Your task to perform on an android device: Open the Play Movies app and select the watchlist tab. Image 0: 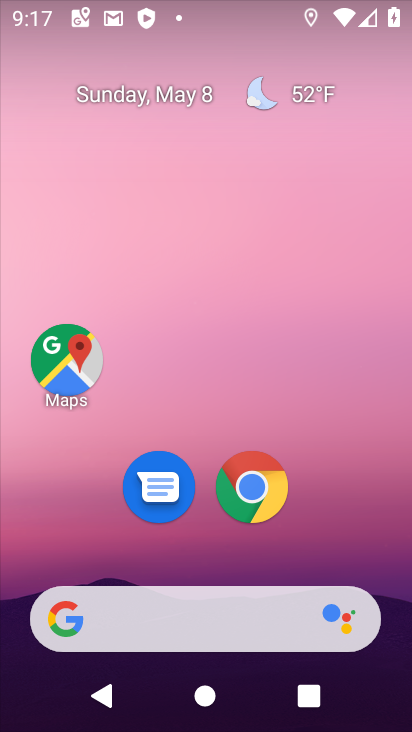
Step 0: drag from (405, 621) to (240, 68)
Your task to perform on an android device: Open the Play Movies app and select the watchlist tab. Image 1: 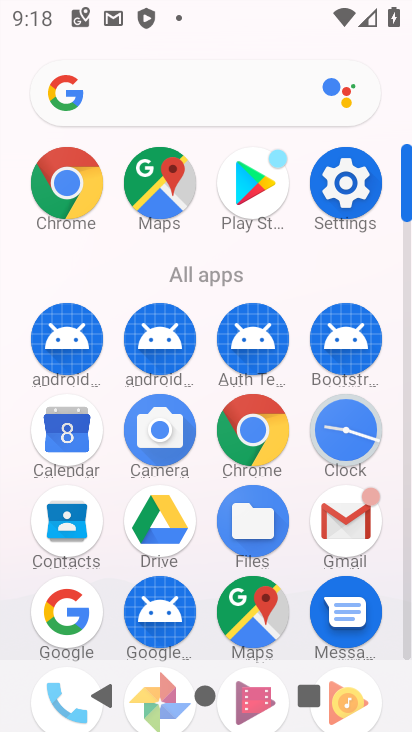
Step 1: drag from (211, 633) to (200, 120)
Your task to perform on an android device: Open the Play Movies app and select the watchlist tab. Image 2: 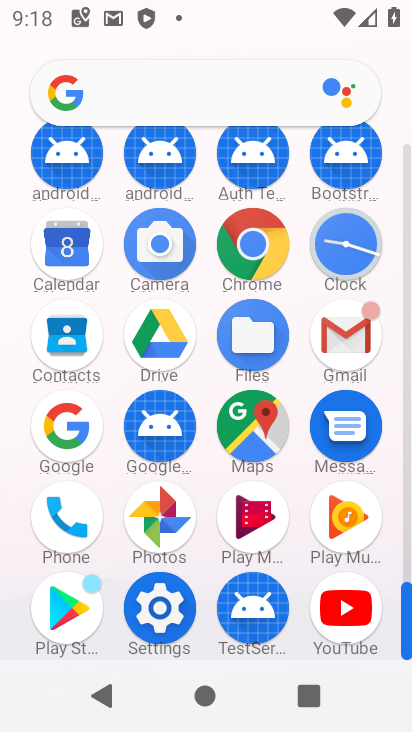
Step 2: click (244, 513)
Your task to perform on an android device: Open the Play Movies app and select the watchlist tab. Image 3: 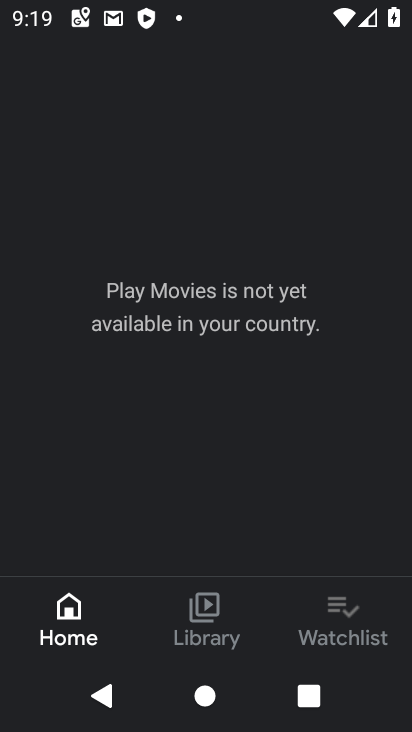
Step 3: click (338, 610)
Your task to perform on an android device: Open the Play Movies app and select the watchlist tab. Image 4: 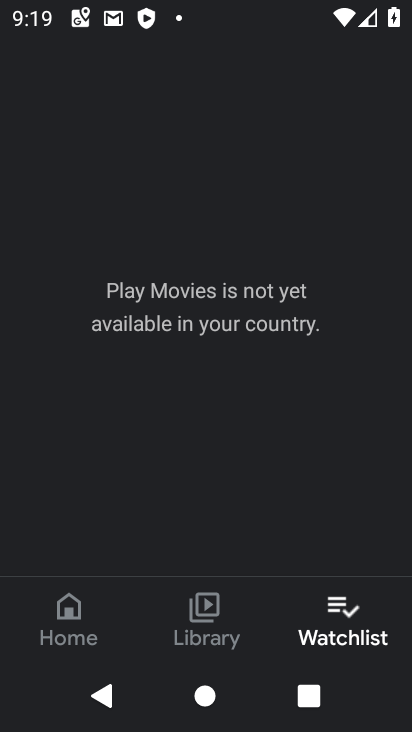
Step 4: task complete